Your task to perform on an android device: open chrome and create a bookmark for the current page Image 0: 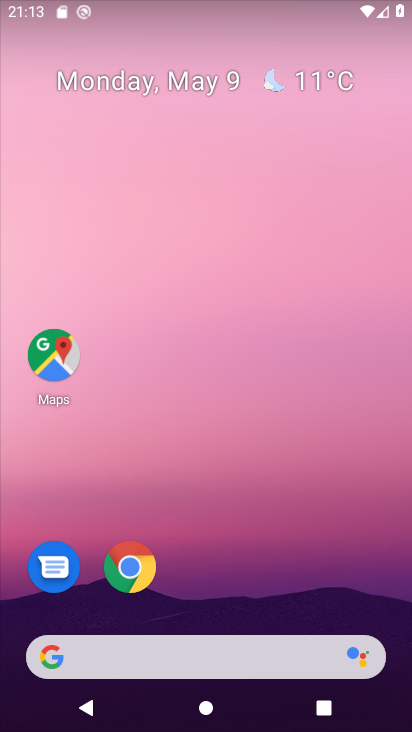
Step 0: click (153, 571)
Your task to perform on an android device: open chrome and create a bookmark for the current page Image 1: 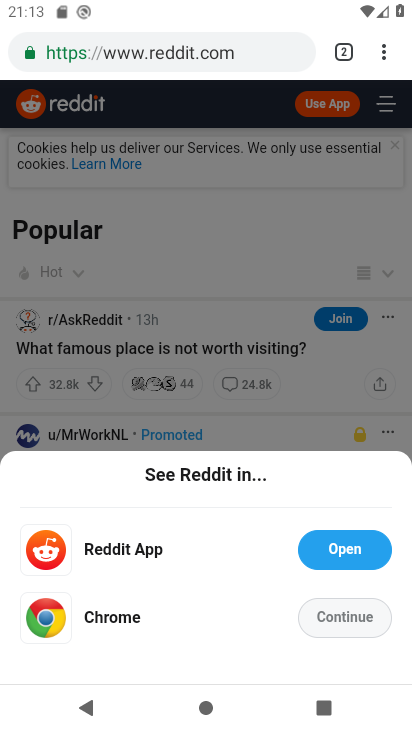
Step 1: click (383, 48)
Your task to perform on an android device: open chrome and create a bookmark for the current page Image 2: 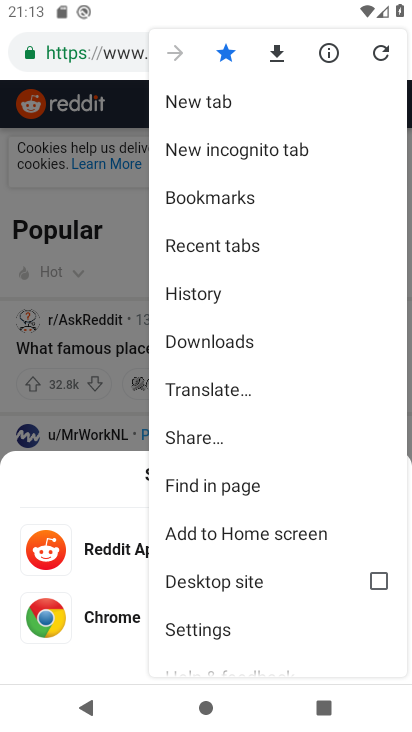
Step 2: click (126, 23)
Your task to perform on an android device: open chrome and create a bookmark for the current page Image 3: 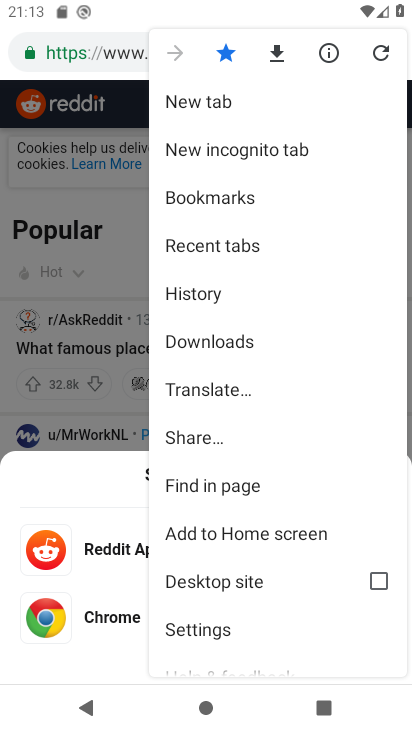
Step 3: click (84, 117)
Your task to perform on an android device: open chrome and create a bookmark for the current page Image 4: 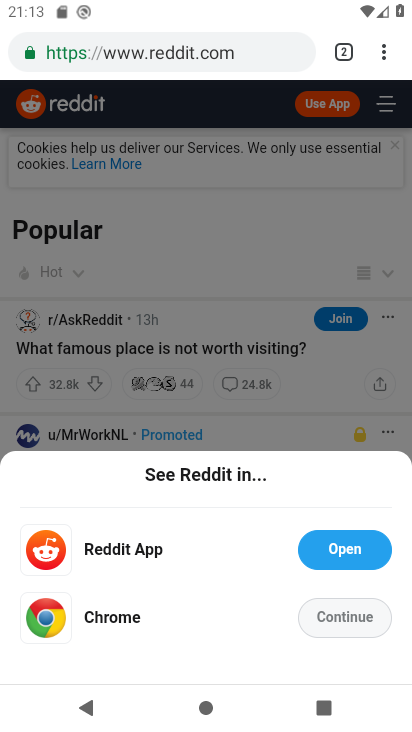
Step 4: click (199, 92)
Your task to perform on an android device: open chrome and create a bookmark for the current page Image 5: 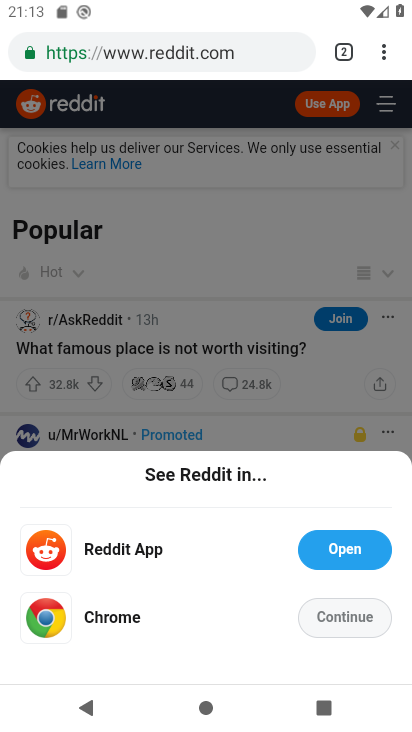
Step 5: click (206, 57)
Your task to perform on an android device: open chrome and create a bookmark for the current page Image 6: 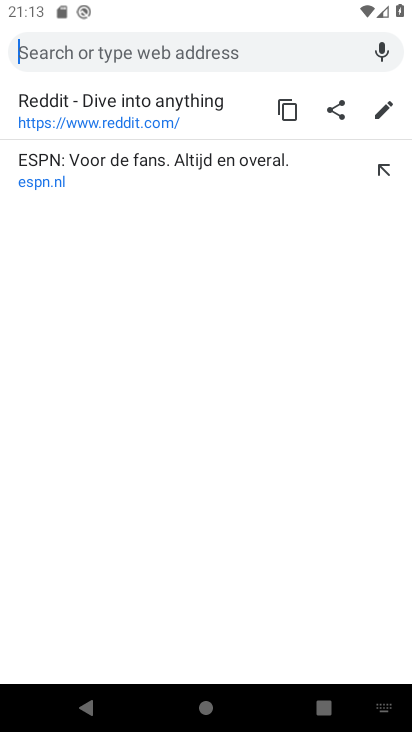
Step 6: type "starbuks"
Your task to perform on an android device: open chrome and create a bookmark for the current page Image 7: 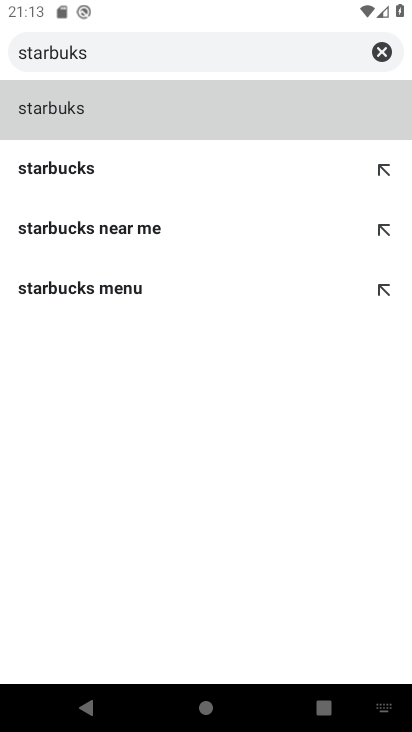
Step 7: click (135, 177)
Your task to perform on an android device: open chrome and create a bookmark for the current page Image 8: 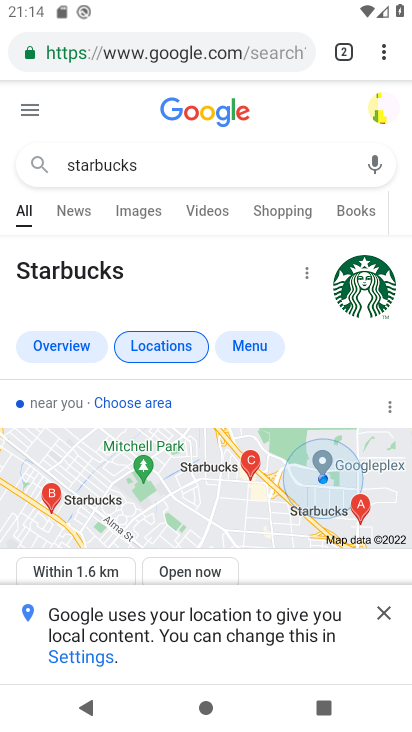
Step 8: click (391, 42)
Your task to perform on an android device: open chrome and create a bookmark for the current page Image 9: 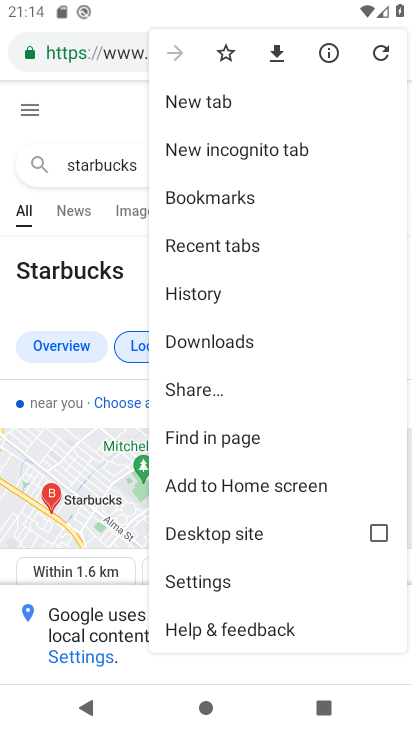
Step 9: click (229, 49)
Your task to perform on an android device: open chrome and create a bookmark for the current page Image 10: 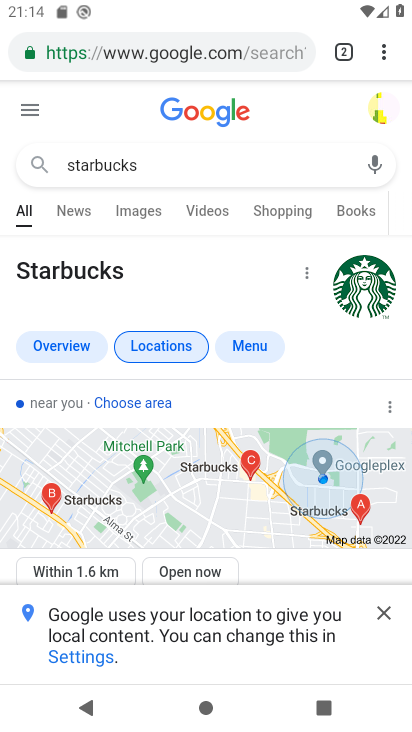
Step 10: task complete